Your task to perform on an android device: turn on the 12-hour format for clock Image 0: 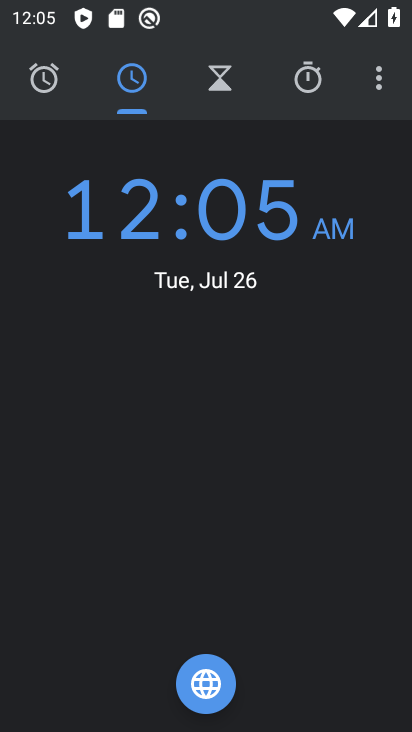
Step 0: click (377, 82)
Your task to perform on an android device: turn on the 12-hour format for clock Image 1: 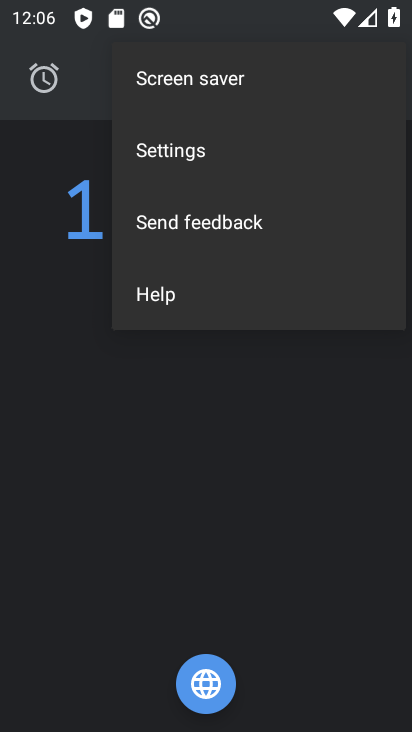
Step 1: click (168, 142)
Your task to perform on an android device: turn on the 12-hour format for clock Image 2: 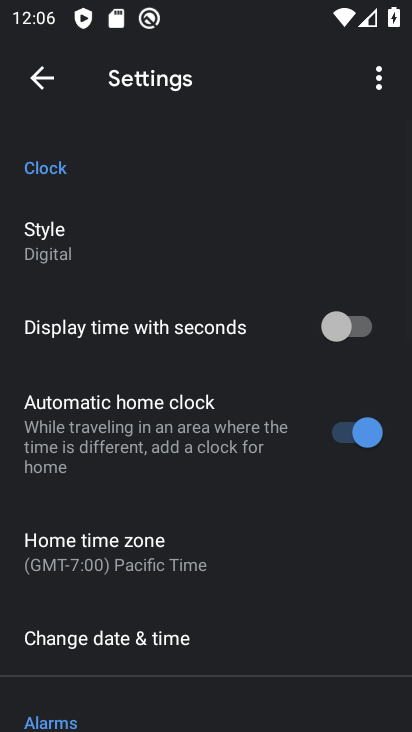
Step 2: click (113, 647)
Your task to perform on an android device: turn on the 12-hour format for clock Image 3: 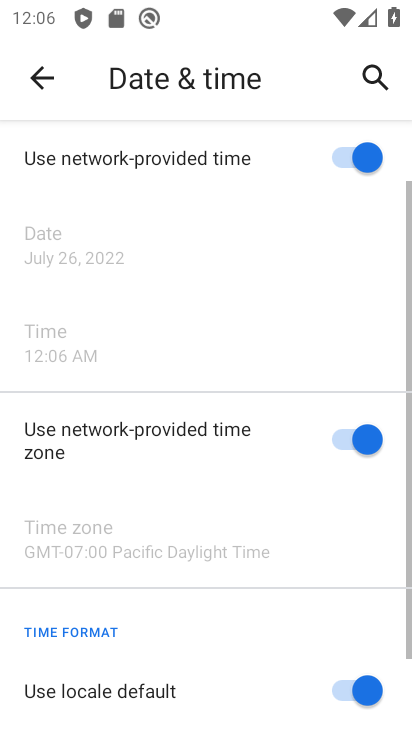
Step 3: task complete